Your task to perform on an android device: Show me popular games on the Play Store Image 0: 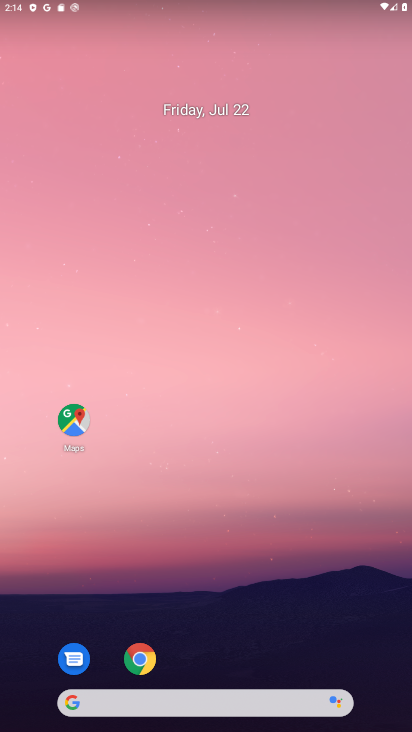
Step 0: click (177, 644)
Your task to perform on an android device: Show me popular games on the Play Store Image 1: 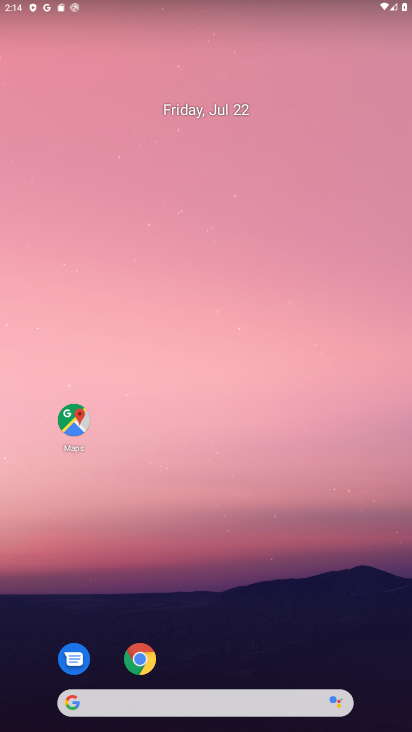
Step 1: drag from (196, 632) to (205, 195)
Your task to perform on an android device: Show me popular games on the Play Store Image 2: 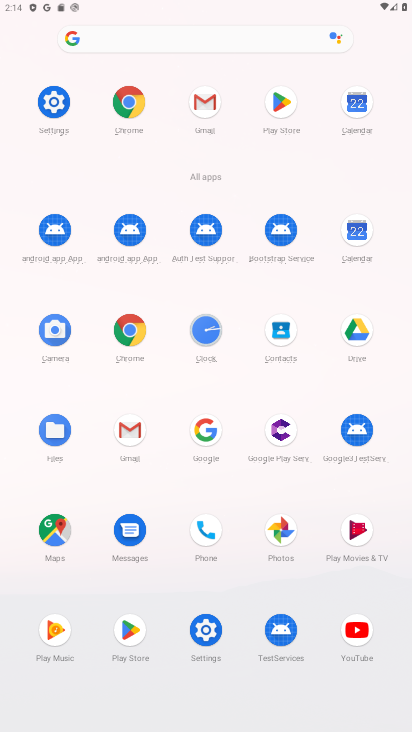
Step 2: click (115, 638)
Your task to perform on an android device: Show me popular games on the Play Store Image 3: 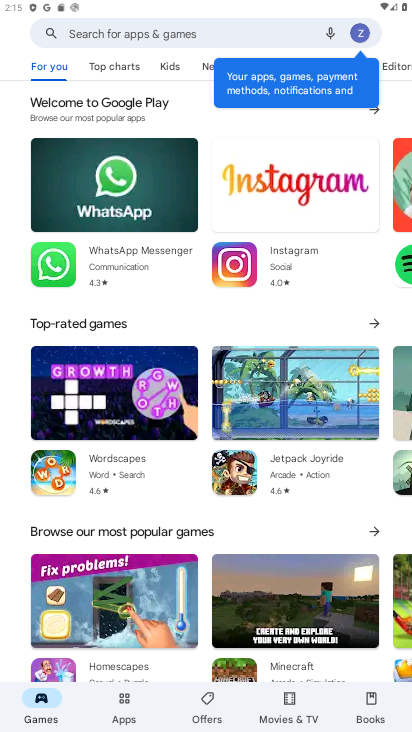
Step 3: task complete